Your task to perform on an android device: Open Chrome and go to the settings page Image 0: 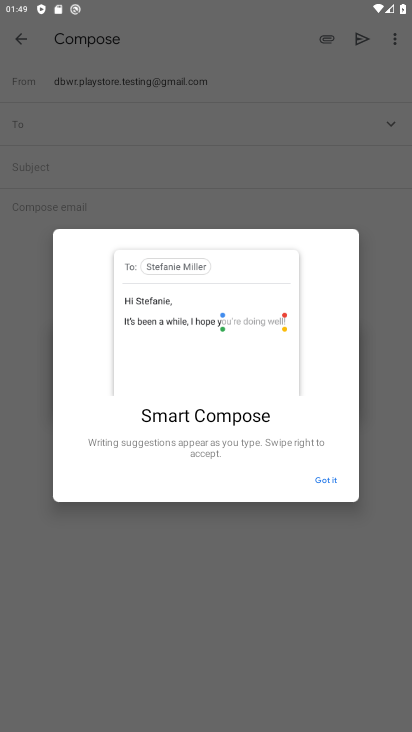
Step 0: press home button
Your task to perform on an android device: Open Chrome and go to the settings page Image 1: 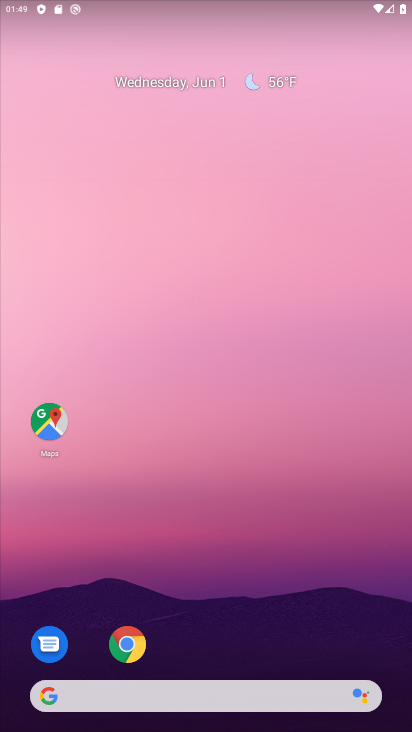
Step 1: click (126, 648)
Your task to perform on an android device: Open Chrome and go to the settings page Image 2: 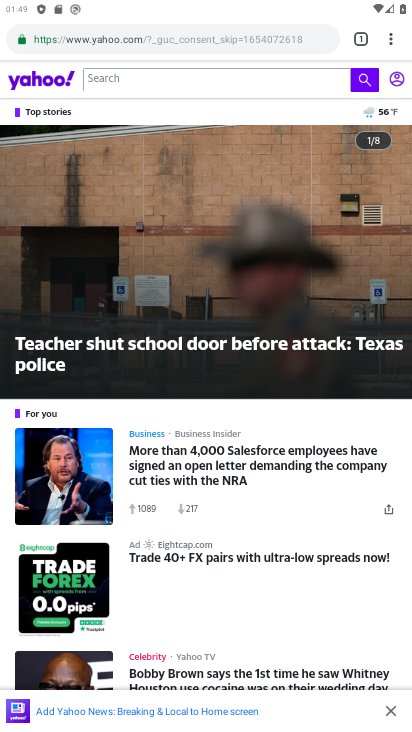
Step 2: click (386, 37)
Your task to perform on an android device: Open Chrome and go to the settings page Image 3: 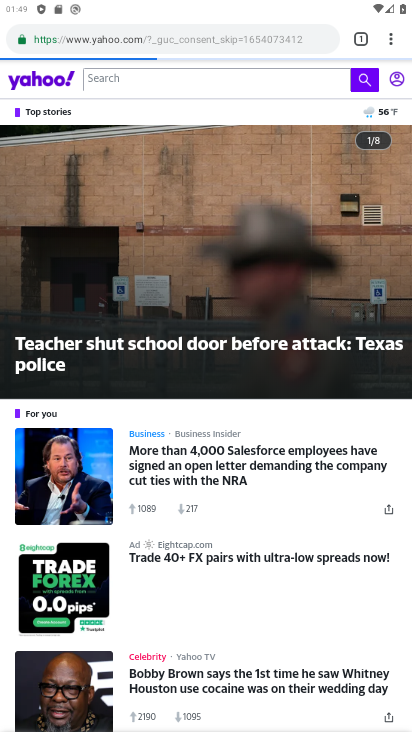
Step 3: click (389, 39)
Your task to perform on an android device: Open Chrome and go to the settings page Image 4: 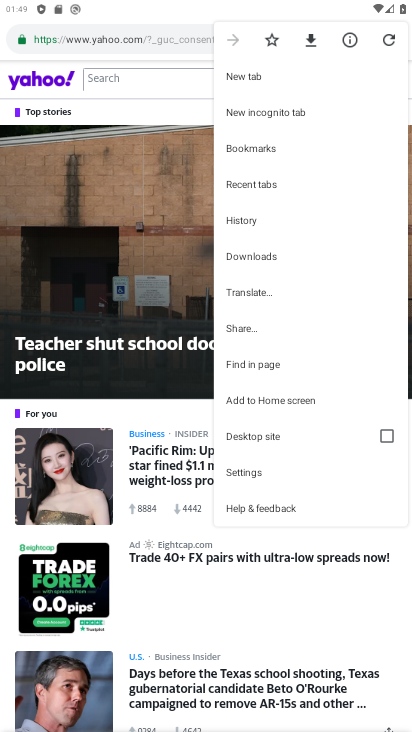
Step 4: click (237, 468)
Your task to perform on an android device: Open Chrome and go to the settings page Image 5: 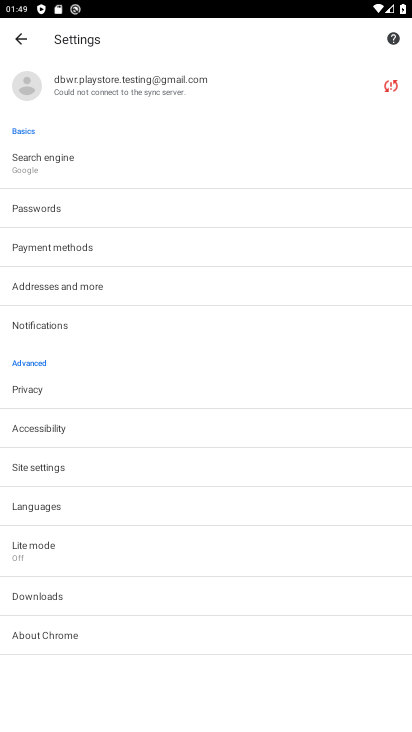
Step 5: task complete